Your task to perform on an android device: open a bookmark in the chrome app Image 0: 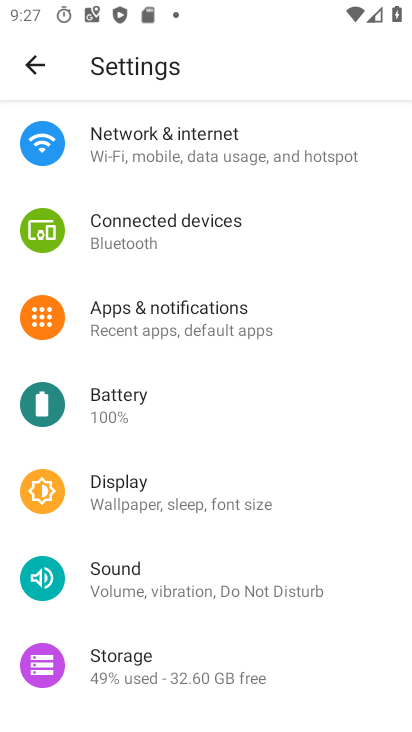
Step 0: press home button
Your task to perform on an android device: open a bookmark in the chrome app Image 1: 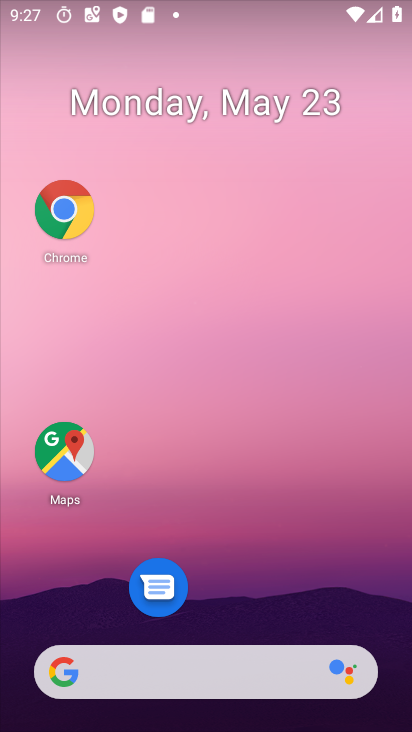
Step 1: click (64, 185)
Your task to perform on an android device: open a bookmark in the chrome app Image 2: 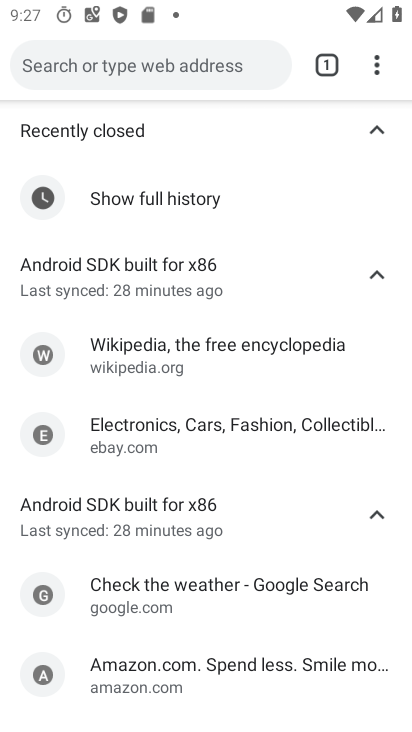
Step 2: click (374, 73)
Your task to perform on an android device: open a bookmark in the chrome app Image 3: 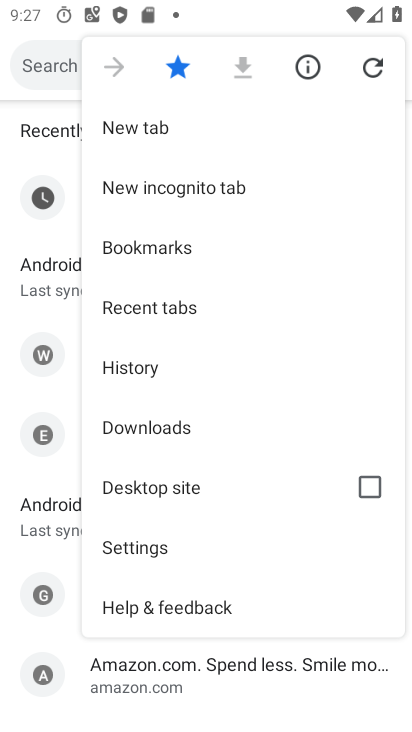
Step 3: click (168, 242)
Your task to perform on an android device: open a bookmark in the chrome app Image 4: 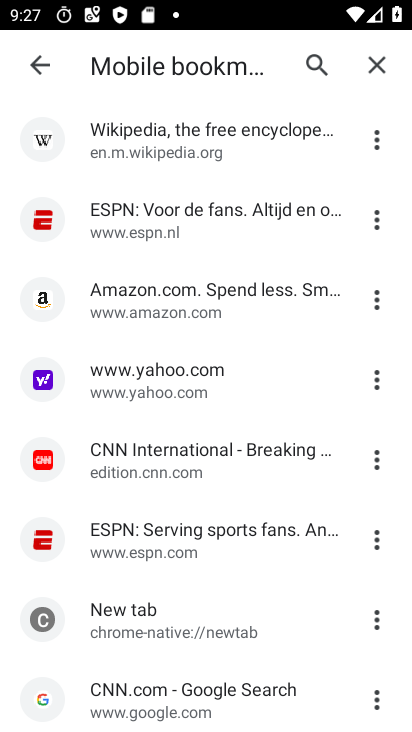
Step 4: click (171, 215)
Your task to perform on an android device: open a bookmark in the chrome app Image 5: 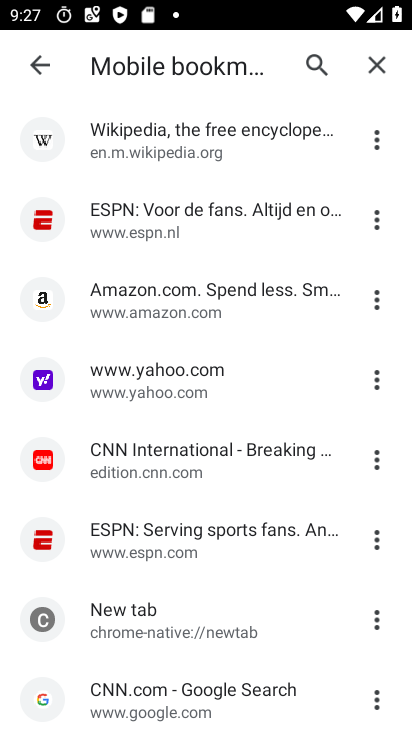
Step 5: click (171, 215)
Your task to perform on an android device: open a bookmark in the chrome app Image 6: 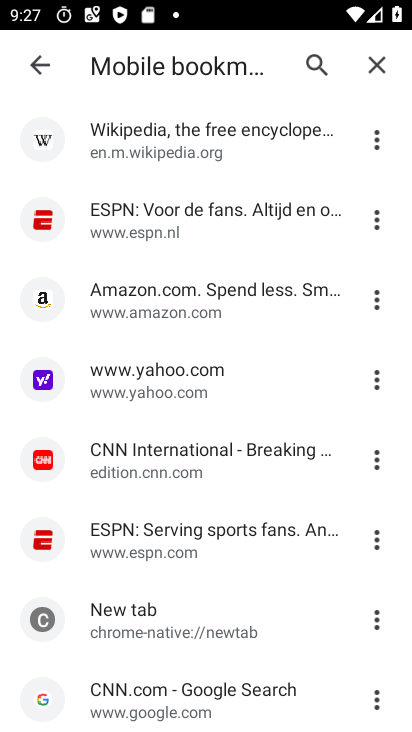
Step 6: click (171, 215)
Your task to perform on an android device: open a bookmark in the chrome app Image 7: 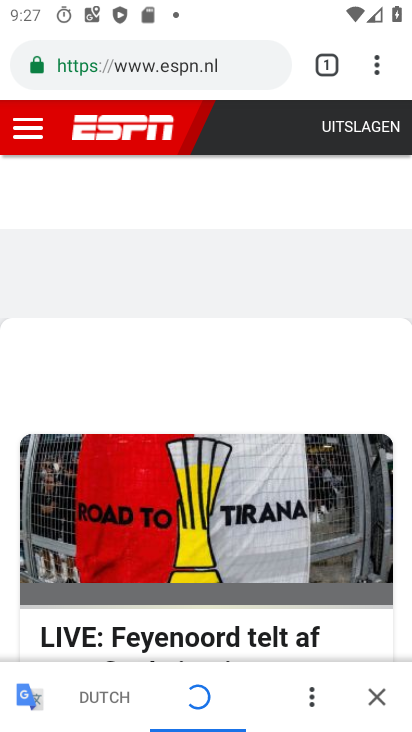
Step 7: task complete